Your task to perform on an android device: Open settings on Google Maps Image 0: 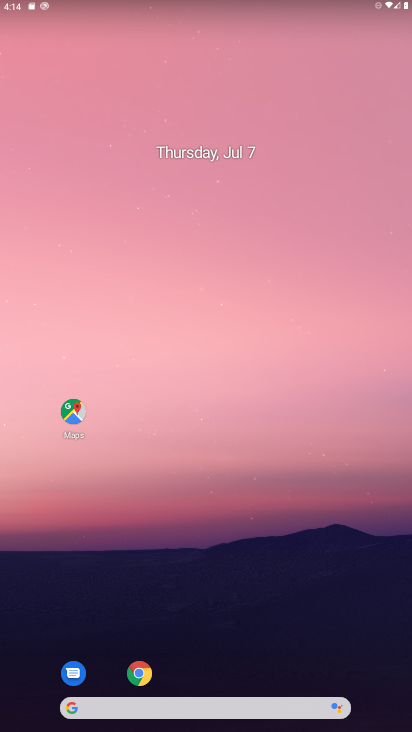
Step 0: click (73, 403)
Your task to perform on an android device: Open settings on Google Maps Image 1: 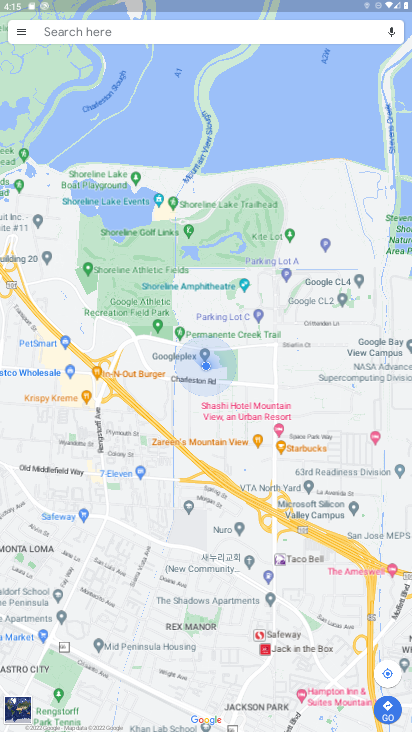
Step 1: click (18, 30)
Your task to perform on an android device: Open settings on Google Maps Image 2: 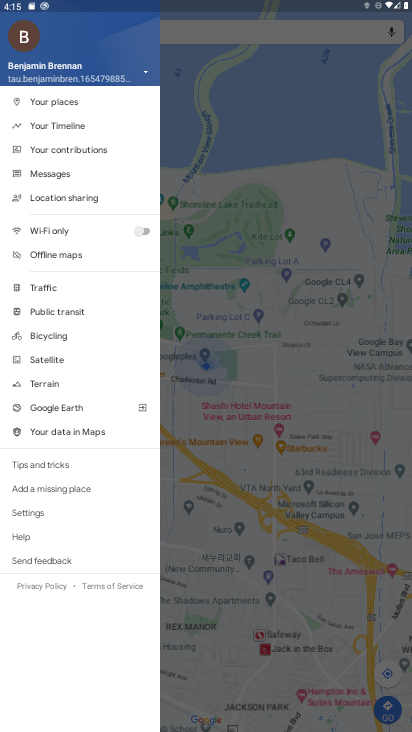
Step 2: click (43, 511)
Your task to perform on an android device: Open settings on Google Maps Image 3: 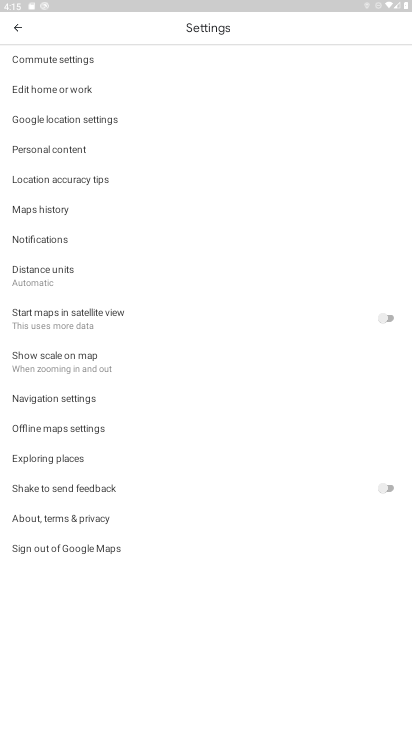
Step 3: task complete